Your task to perform on an android device: Open Android settings Image 0: 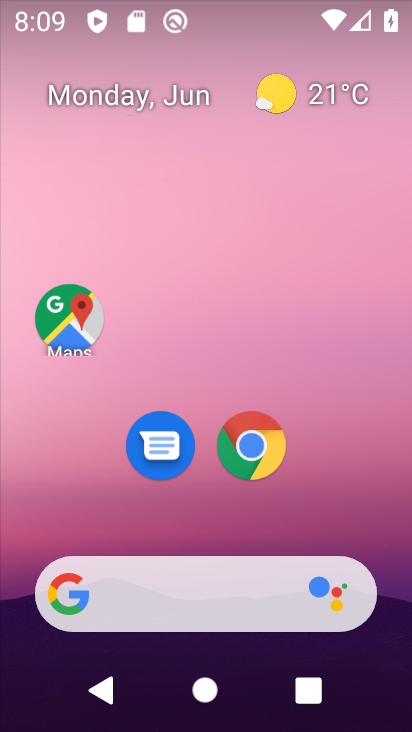
Step 0: drag from (351, 513) to (306, 46)
Your task to perform on an android device: Open Android settings Image 1: 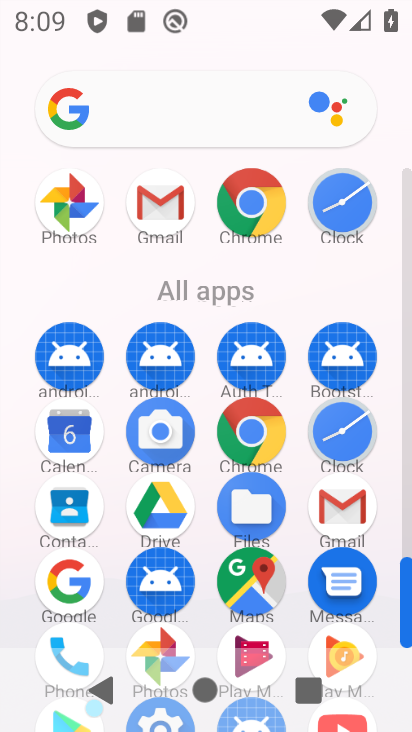
Step 1: drag from (210, 517) to (231, 192)
Your task to perform on an android device: Open Android settings Image 2: 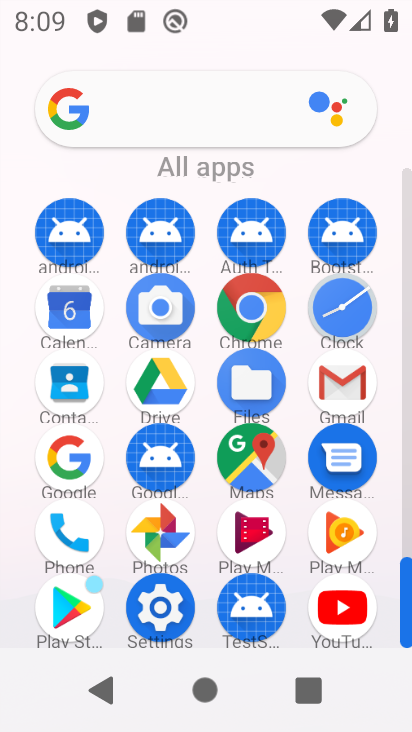
Step 2: click (153, 604)
Your task to perform on an android device: Open Android settings Image 3: 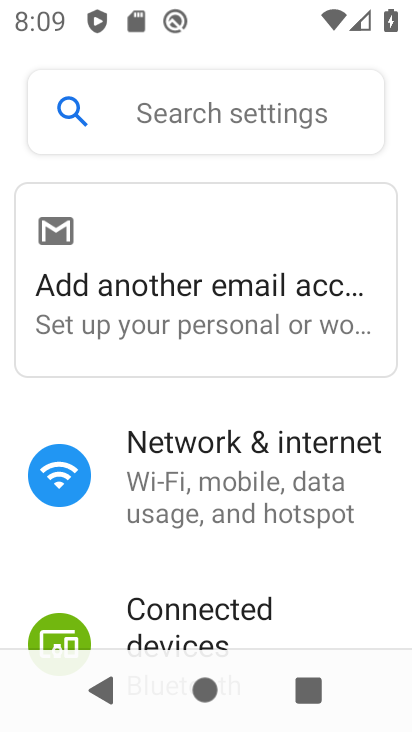
Step 3: drag from (200, 610) to (325, 101)
Your task to perform on an android device: Open Android settings Image 4: 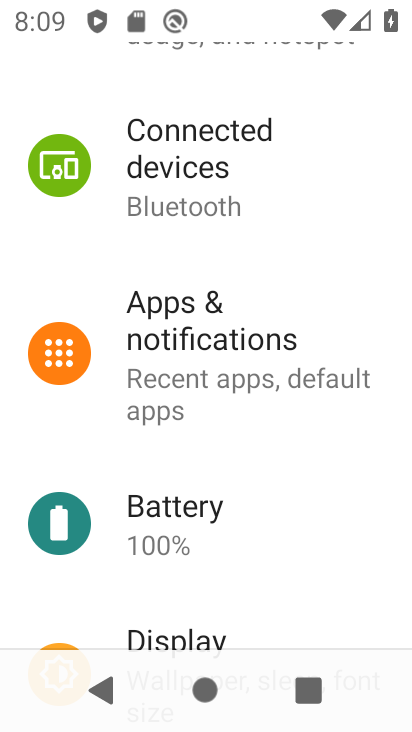
Step 4: drag from (271, 497) to (382, 135)
Your task to perform on an android device: Open Android settings Image 5: 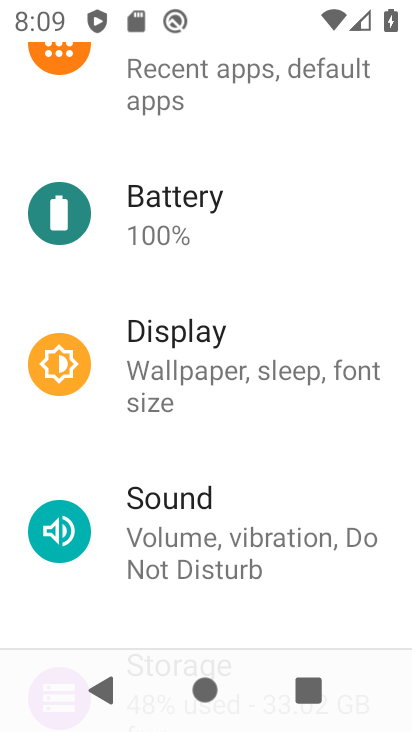
Step 5: drag from (272, 547) to (216, 0)
Your task to perform on an android device: Open Android settings Image 6: 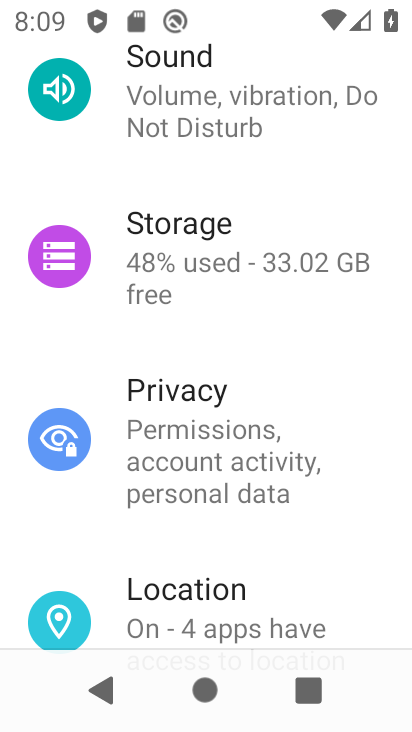
Step 6: drag from (222, 568) to (170, 9)
Your task to perform on an android device: Open Android settings Image 7: 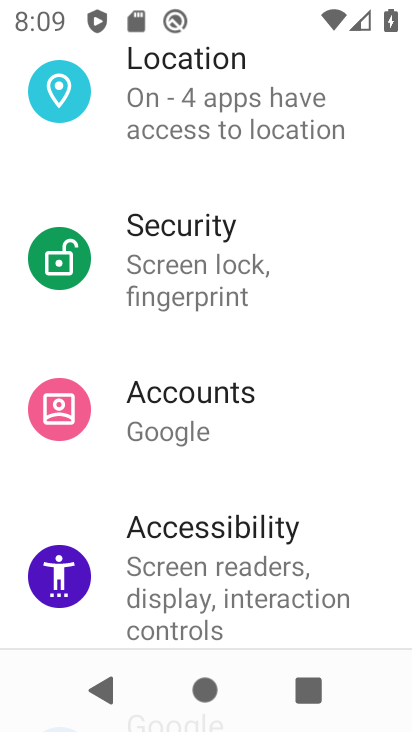
Step 7: drag from (184, 562) to (186, 15)
Your task to perform on an android device: Open Android settings Image 8: 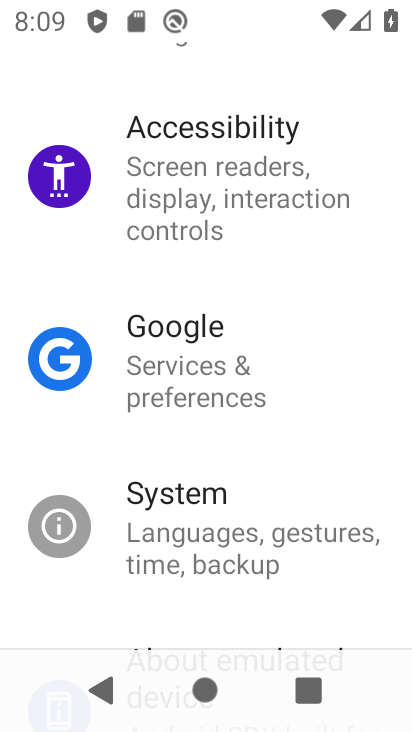
Step 8: click (174, 526)
Your task to perform on an android device: Open Android settings Image 9: 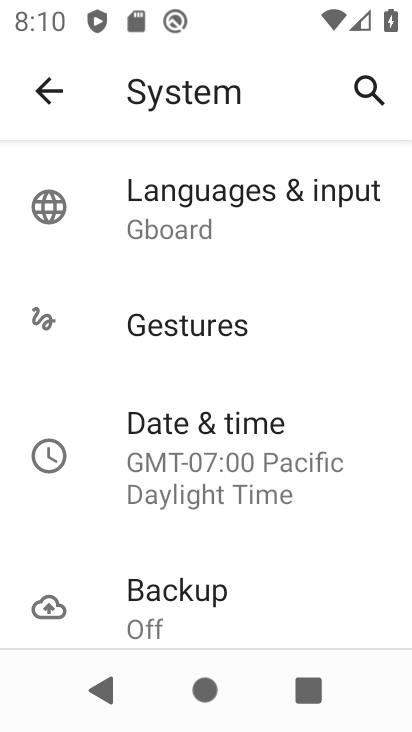
Step 9: task complete